Your task to perform on an android device: What's on my calendar today? Image 0: 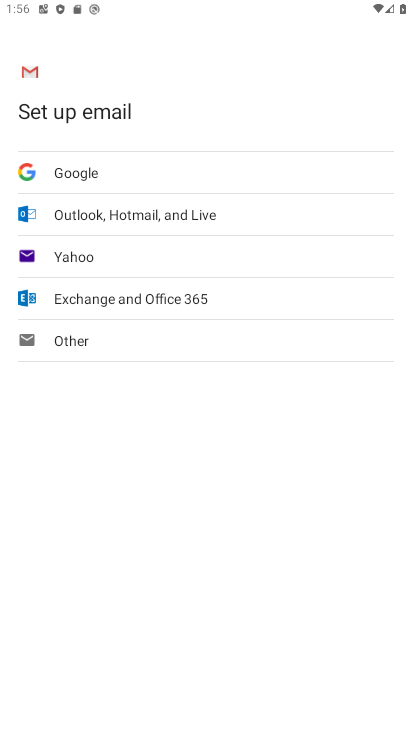
Step 0: press home button
Your task to perform on an android device: What's on my calendar today? Image 1: 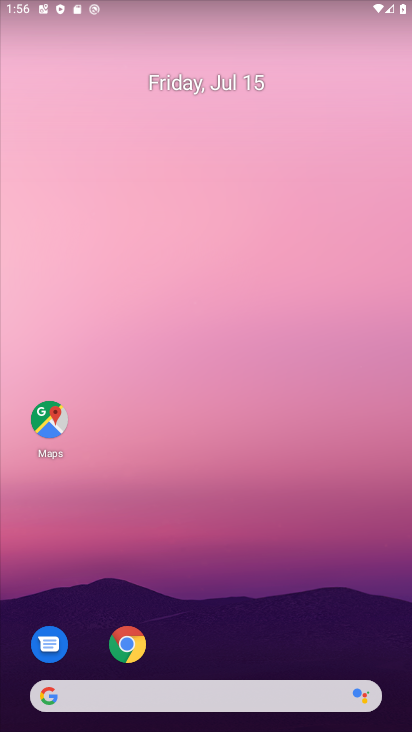
Step 1: drag from (29, 654) to (167, 245)
Your task to perform on an android device: What's on my calendar today? Image 2: 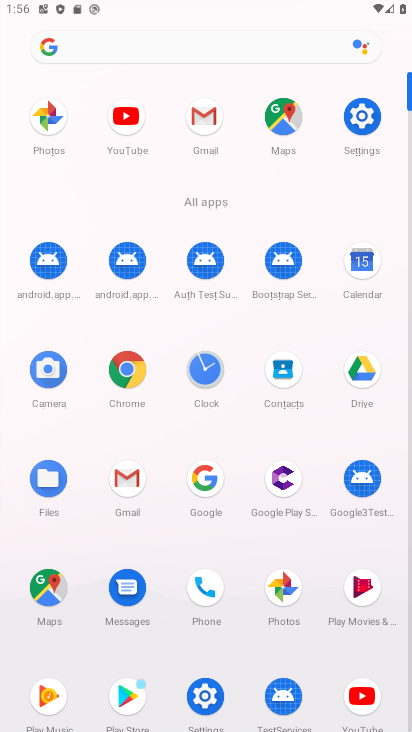
Step 2: click (362, 279)
Your task to perform on an android device: What's on my calendar today? Image 3: 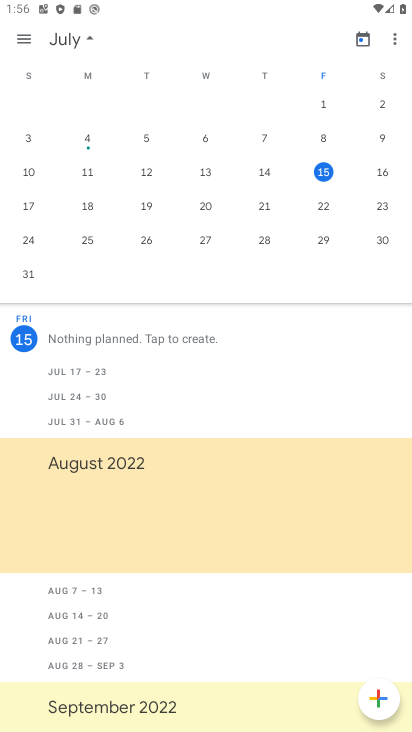
Step 3: task complete